Your task to perform on an android device: Open network settings Image 0: 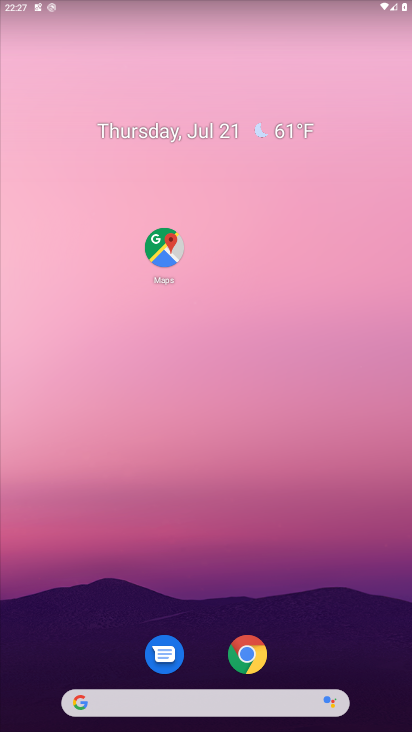
Step 0: drag from (30, 692) to (165, 187)
Your task to perform on an android device: Open network settings Image 1: 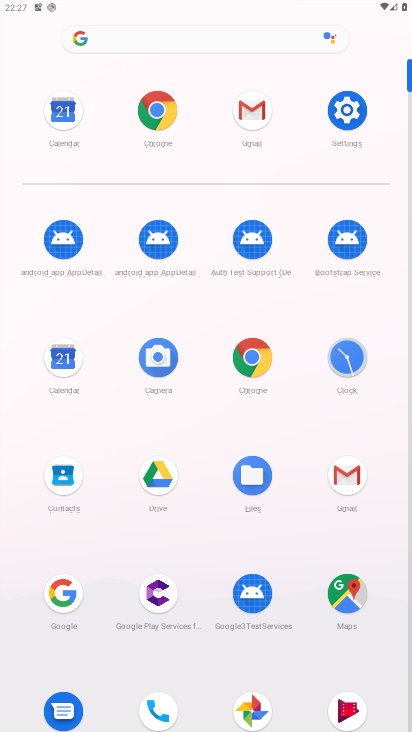
Step 1: click (346, 110)
Your task to perform on an android device: Open network settings Image 2: 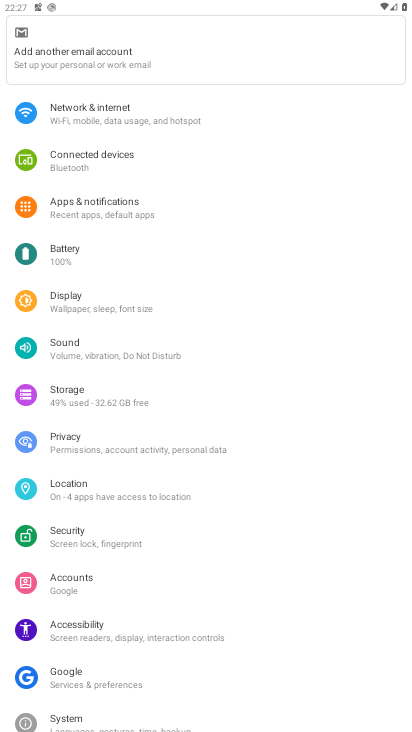
Step 2: click (117, 121)
Your task to perform on an android device: Open network settings Image 3: 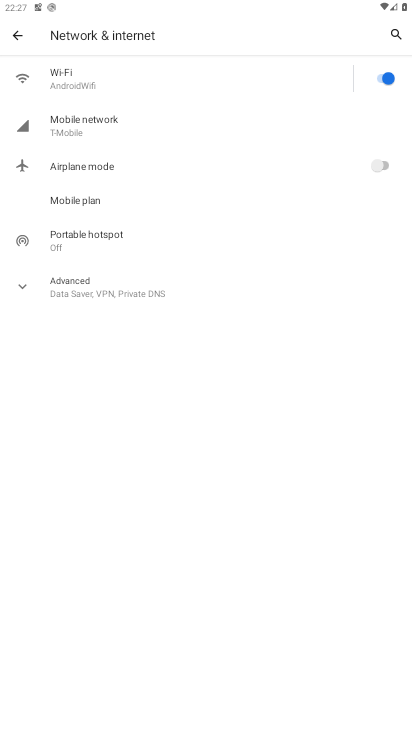
Step 3: task complete